Your task to perform on an android device: Add "panasonic triple a" to the cart on costco Image 0: 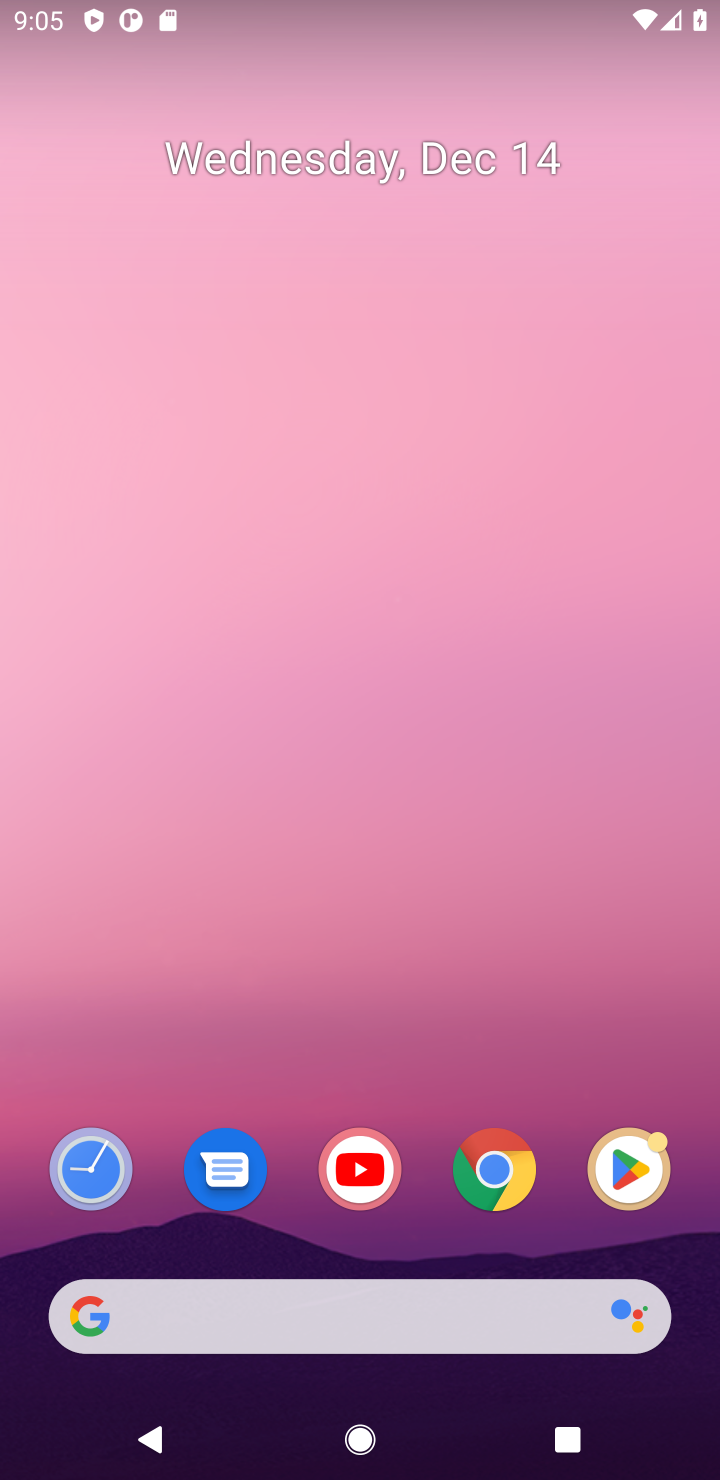
Step 0: click (511, 1154)
Your task to perform on an android device: Add "panasonic triple a" to the cart on costco Image 1: 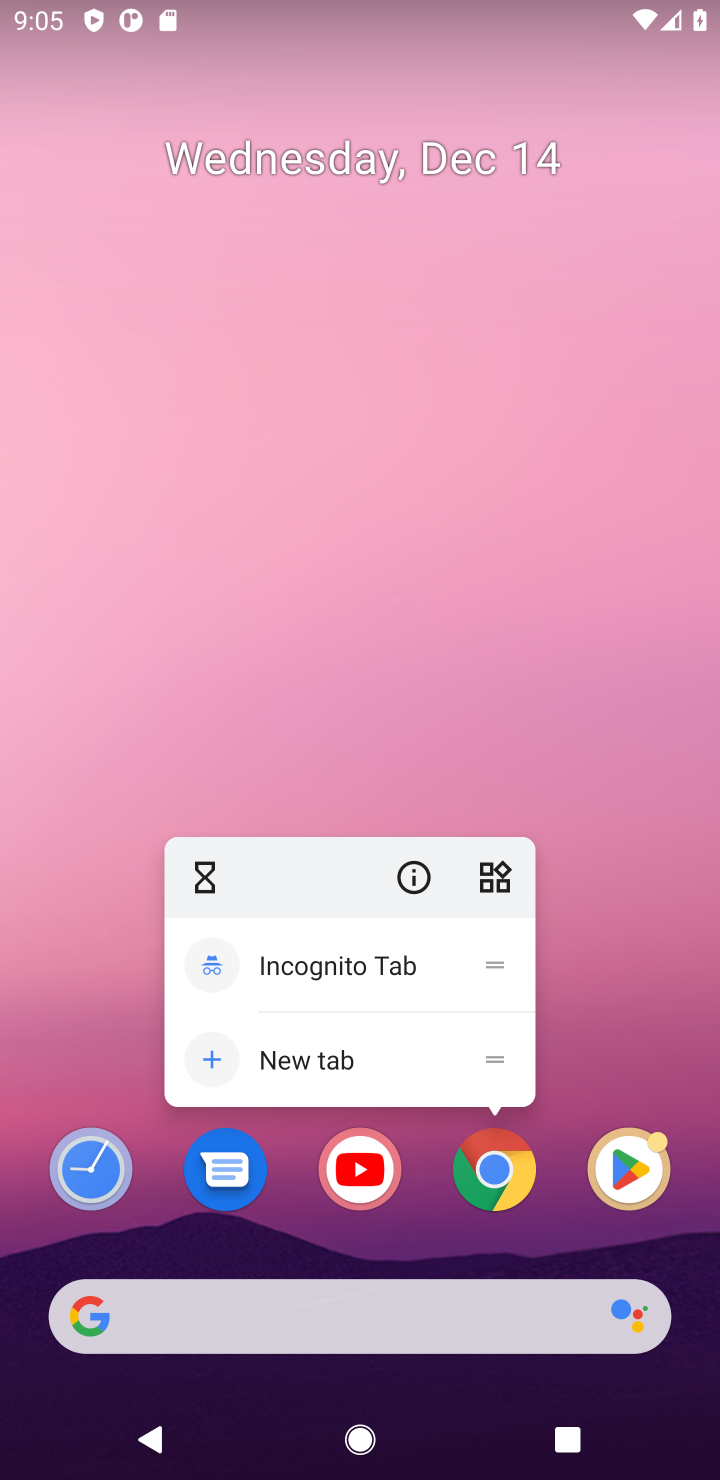
Step 1: click (489, 1168)
Your task to perform on an android device: Add "panasonic triple a" to the cart on costco Image 2: 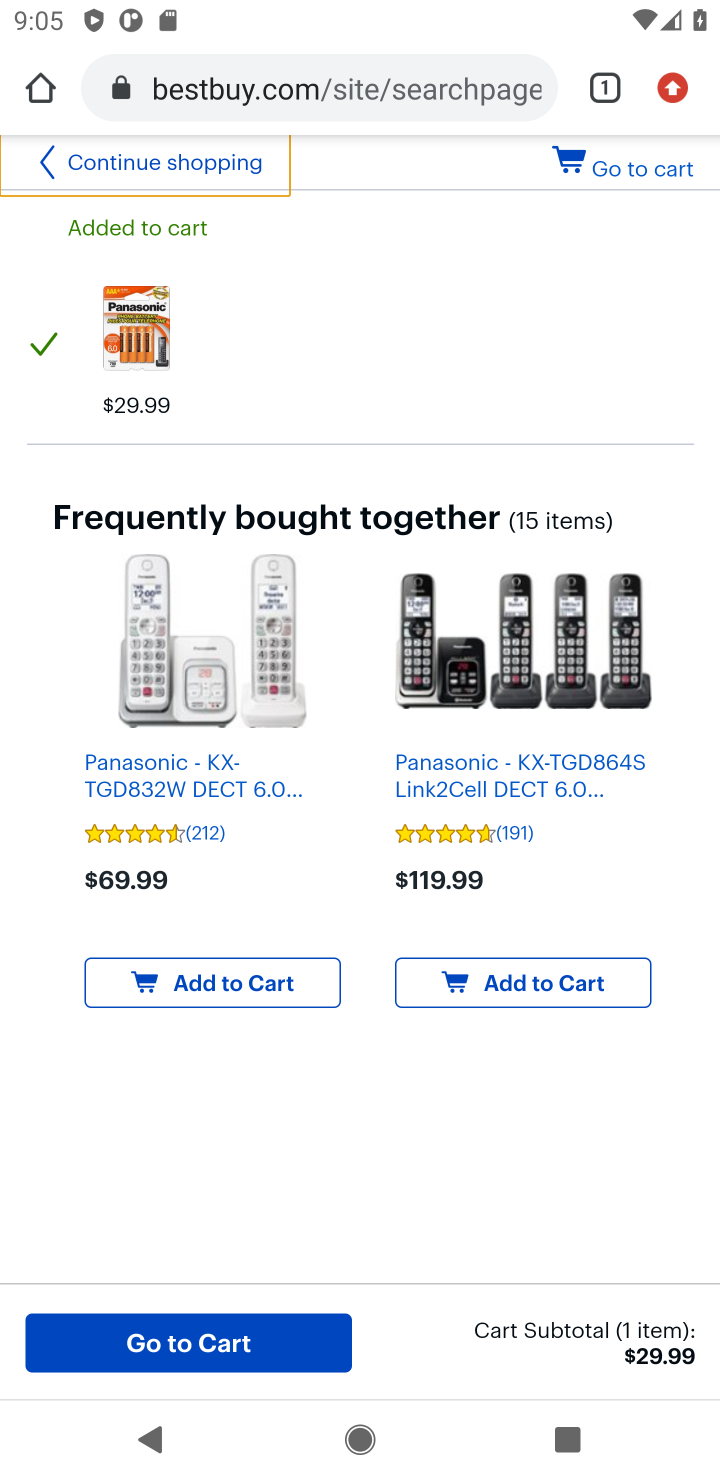
Step 2: click (607, 79)
Your task to perform on an android device: Add "panasonic triple a" to the cart on costco Image 3: 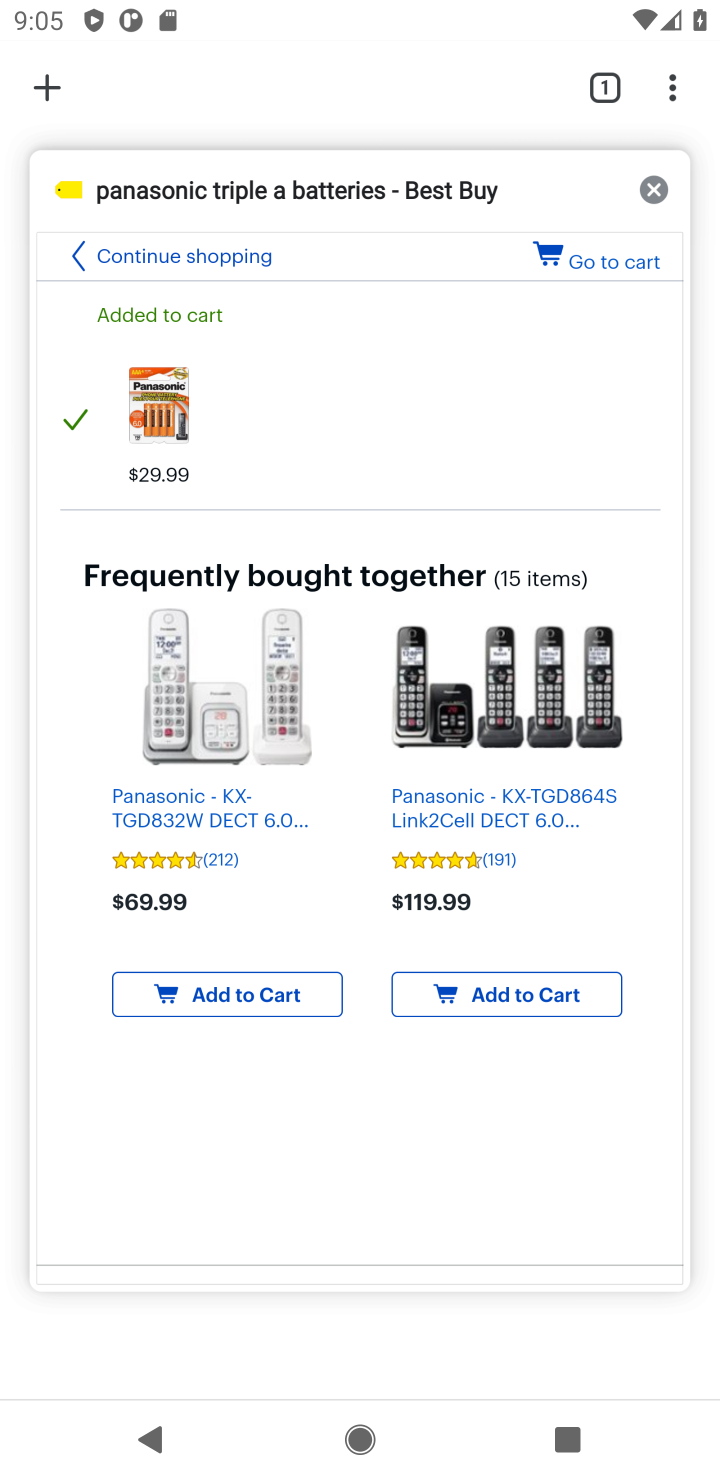
Step 3: click (33, 88)
Your task to perform on an android device: Add "panasonic triple a" to the cart on costco Image 4: 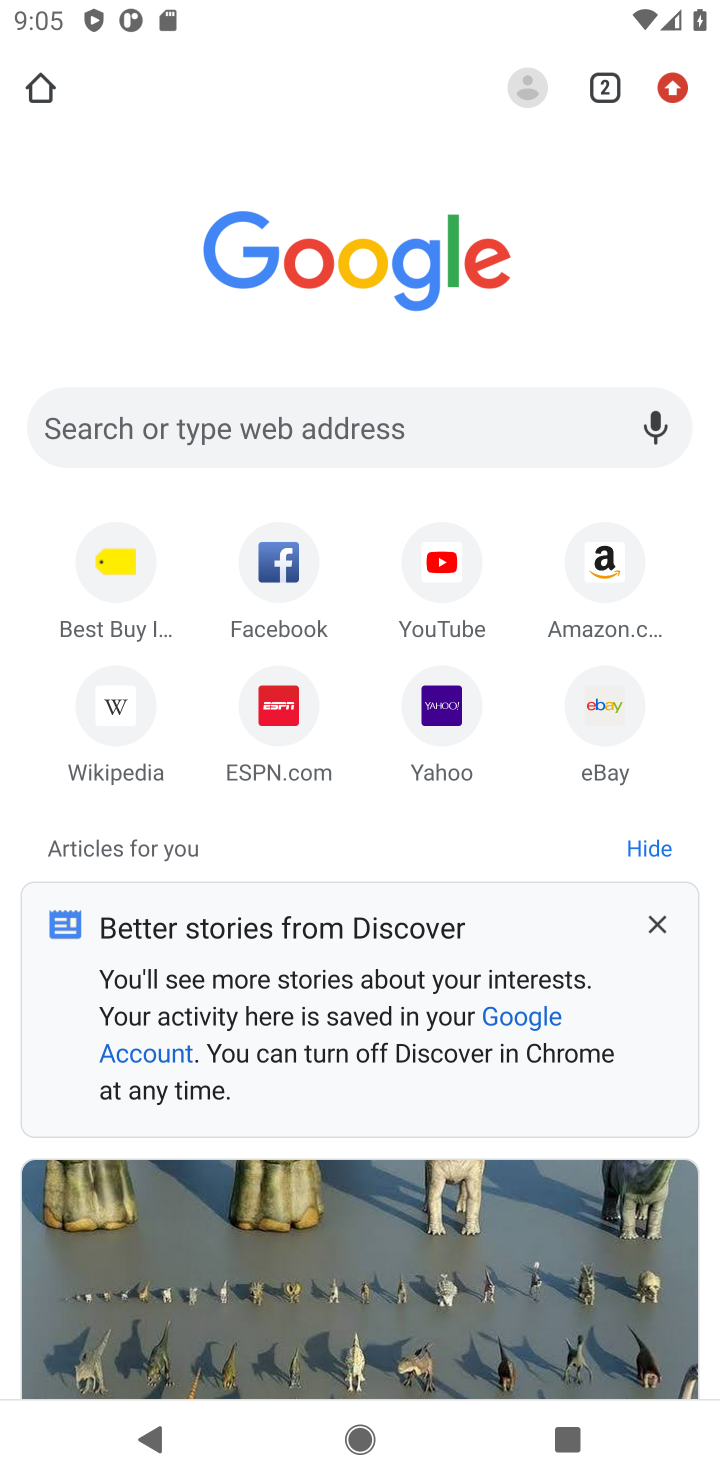
Step 4: click (230, 429)
Your task to perform on an android device: Add "panasonic triple a" to the cart on costco Image 5: 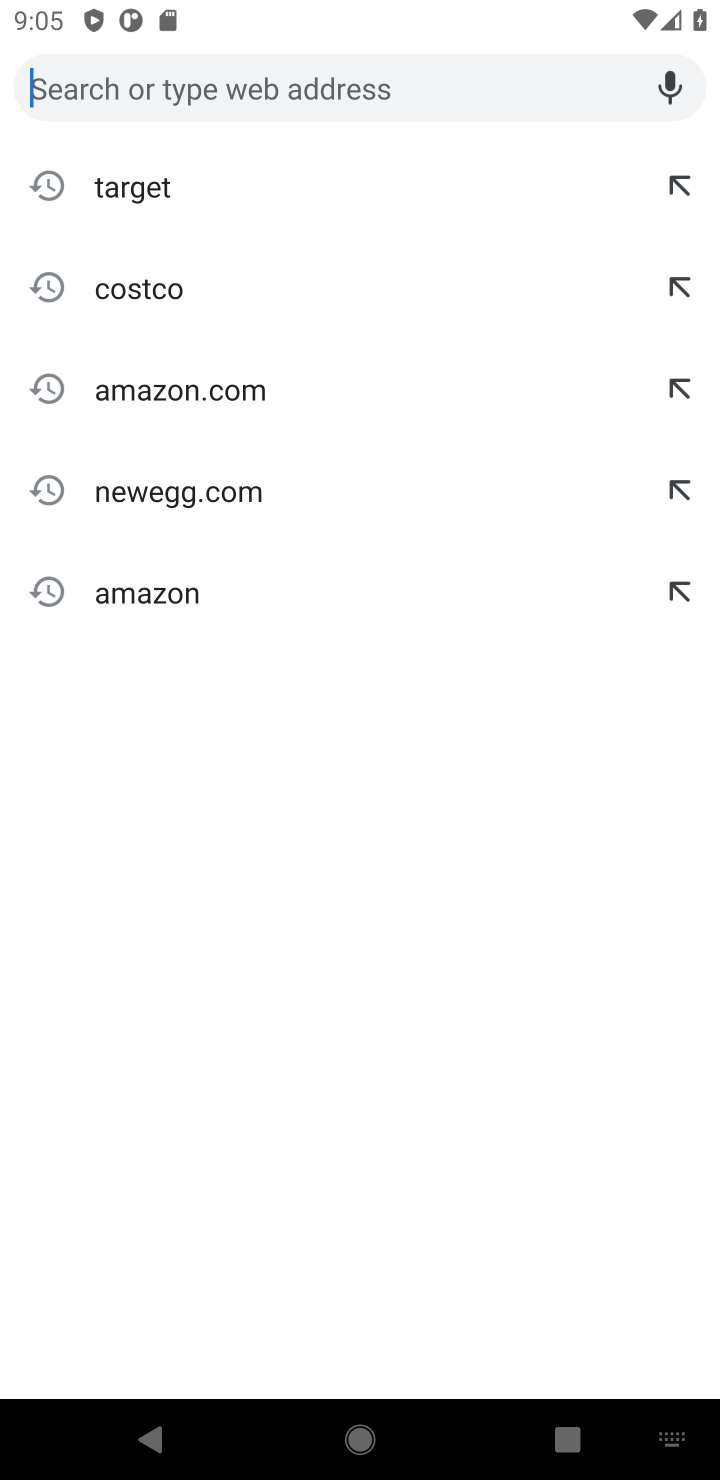
Step 5: click (139, 288)
Your task to perform on an android device: Add "panasonic triple a" to the cart on costco Image 6: 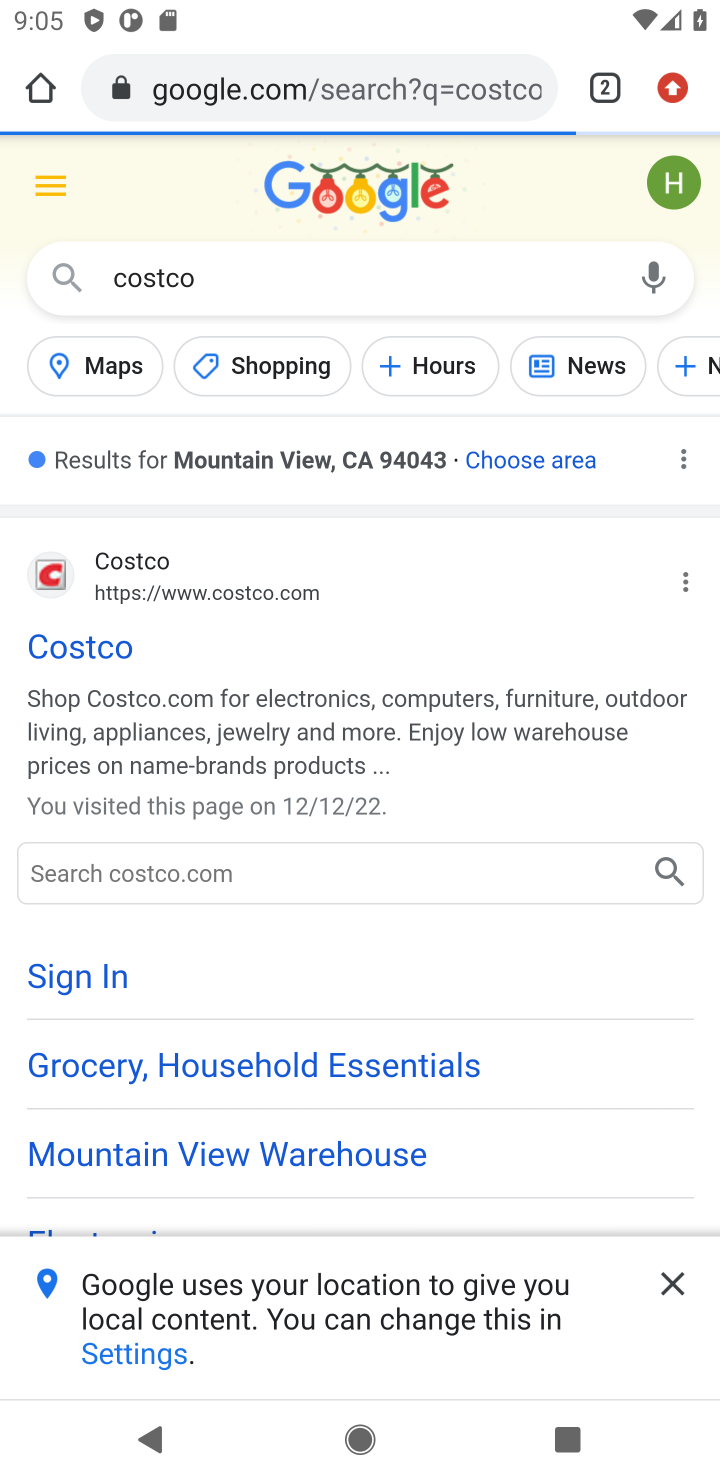
Step 6: click (108, 870)
Your task to perform on an android device: Add "panasonic triple a" to the cart on costco Image 7: 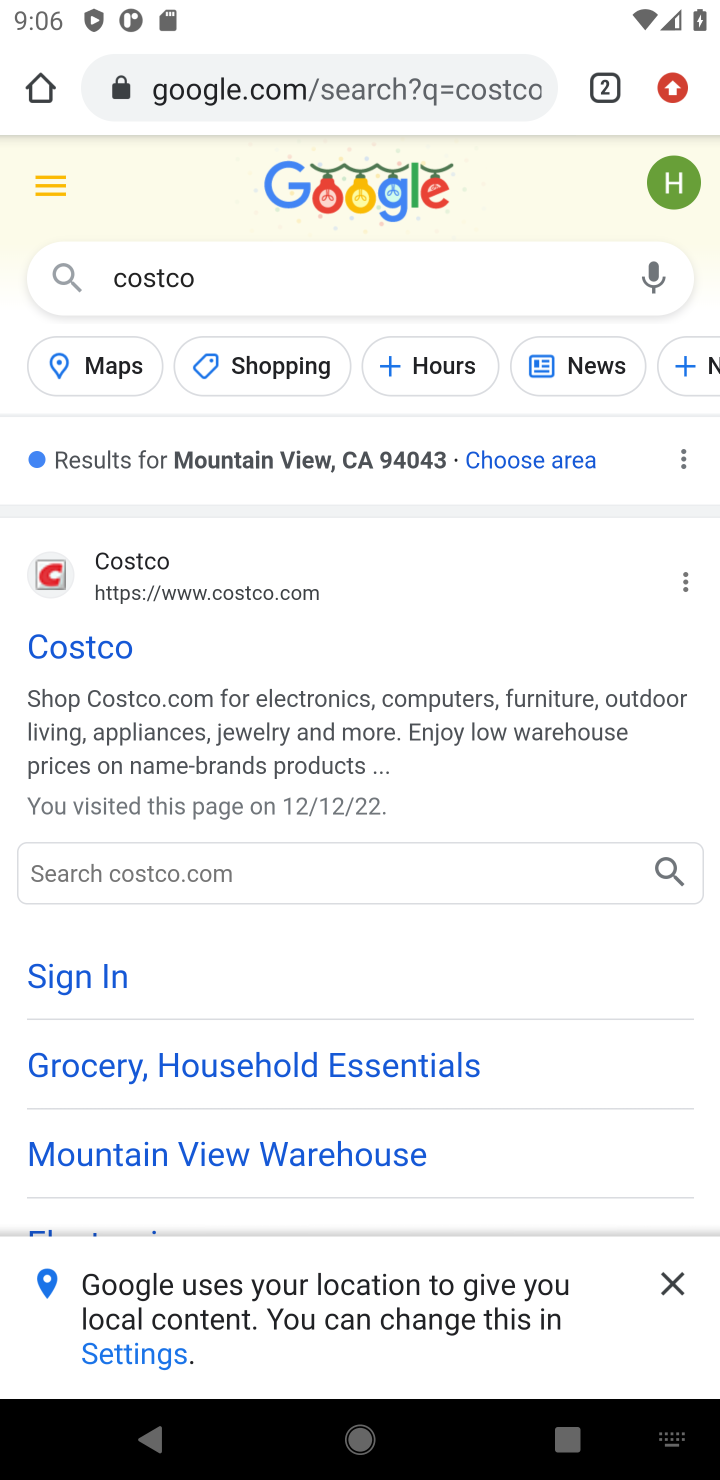
Step 7: type "panasonic triple a"
Your task to perform on an android device: Add "panasonic triple a" to the cart on costco Image 8: 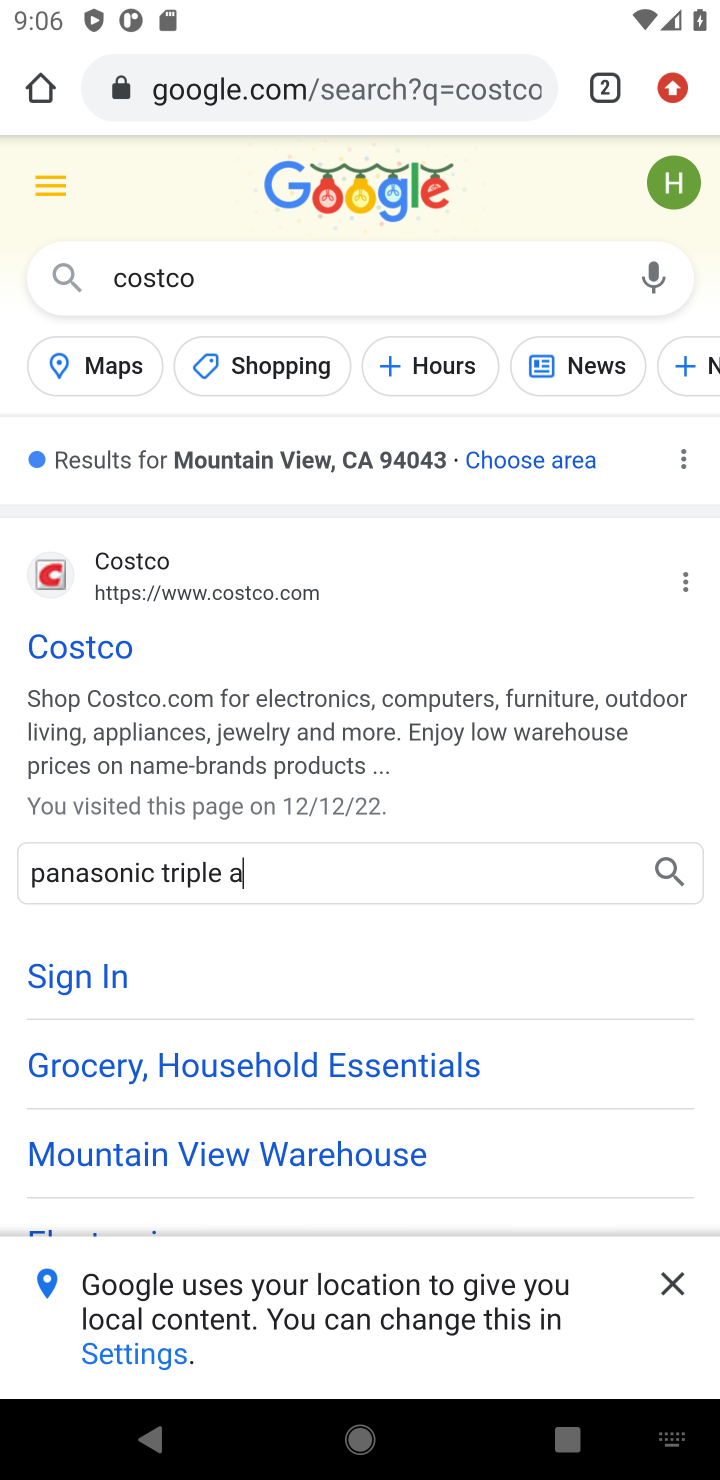
Step 8: click (673, 857)
Your task to perform on an android device: Add "panasonic triple a" to the cart on costco Image 9: 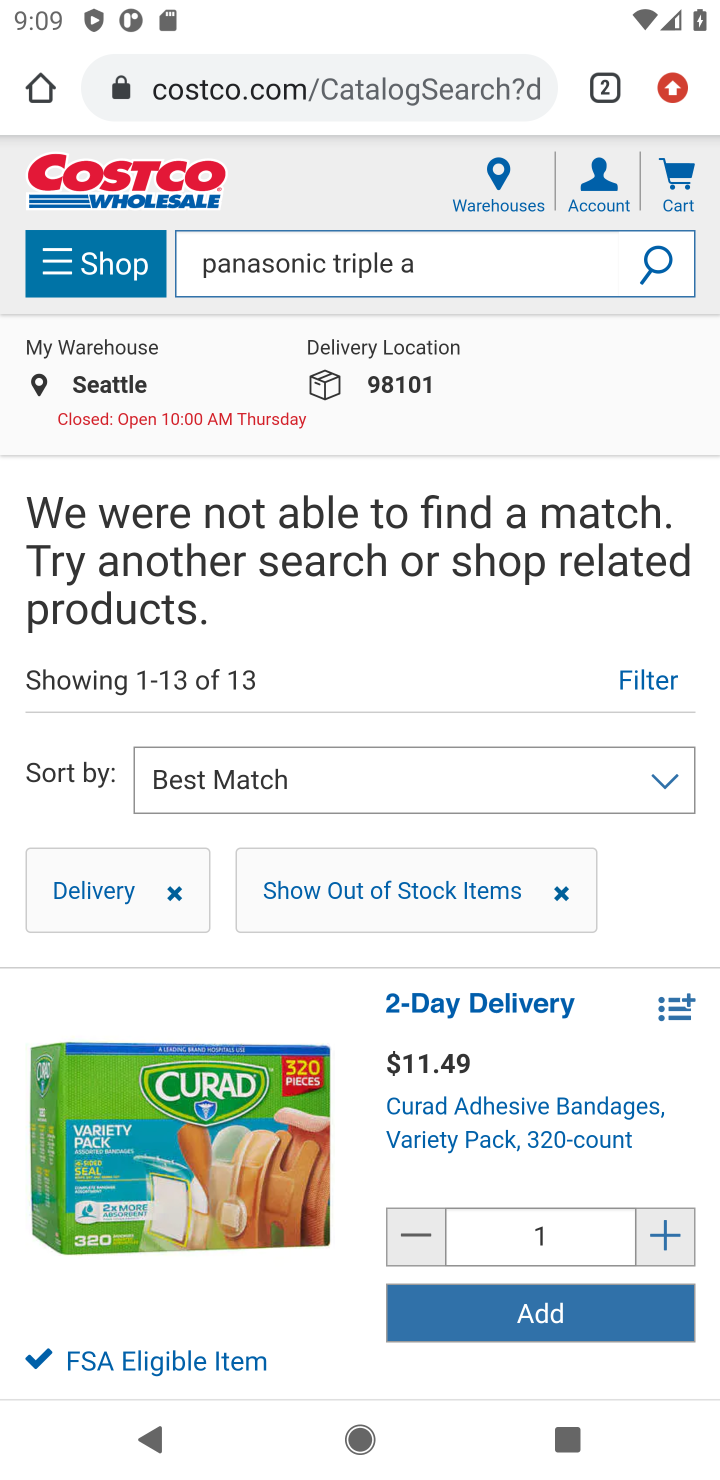
Step 9: task complete